Your task to perform on an android device: What is the news today? Image 0: 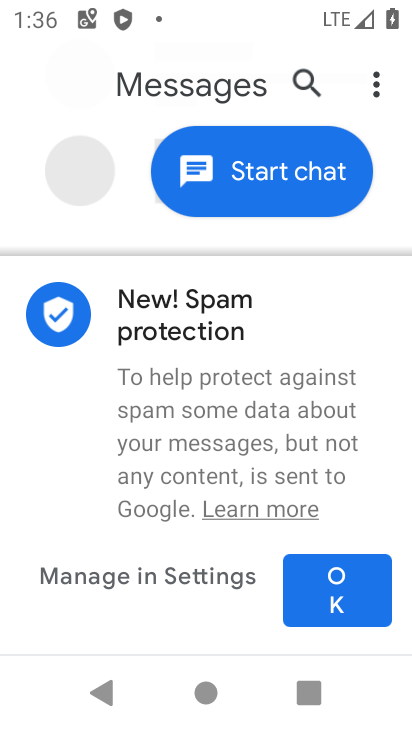
Step 0: press home button
Your task to perform on an android device: What is the news today? Image 1: 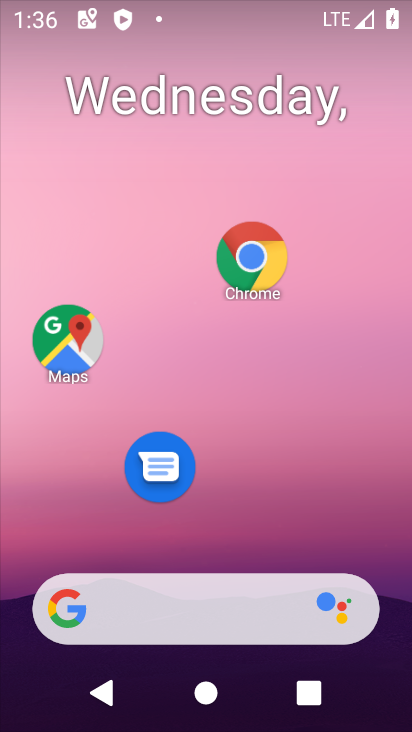
Step 1: click (254, 260)
Your task to perform on an android device: What is the news today? Image 2: 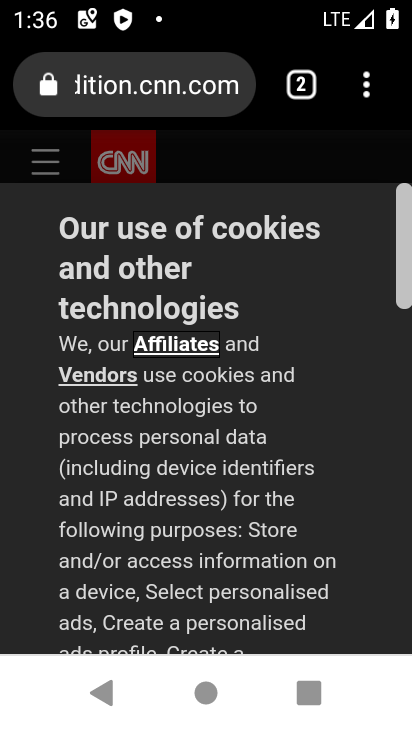
Step 2: drag from (368, 93) to (96, 169)
Your task to perform on an android device: What is the news today? Image 3: 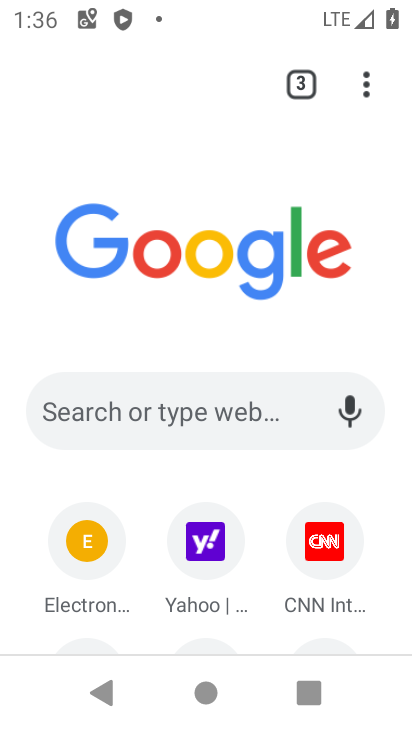
Step 3: click (147, 408)
Your task to perform on an android device: What is the news today? Image 4: 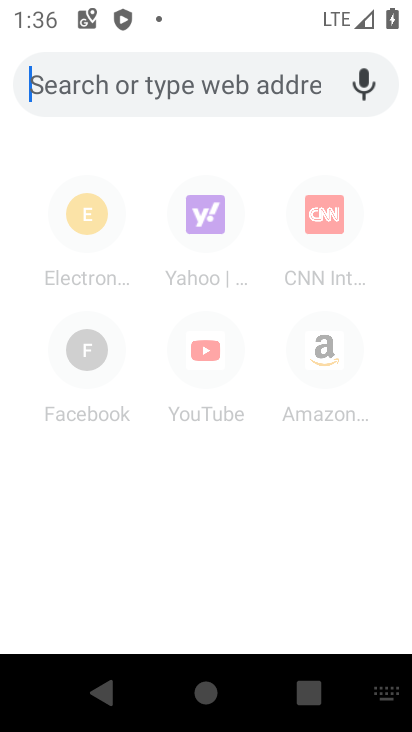
Step 4: type "What is the news today?"
Your task to perform on an android device: What is the news today? Image 5: 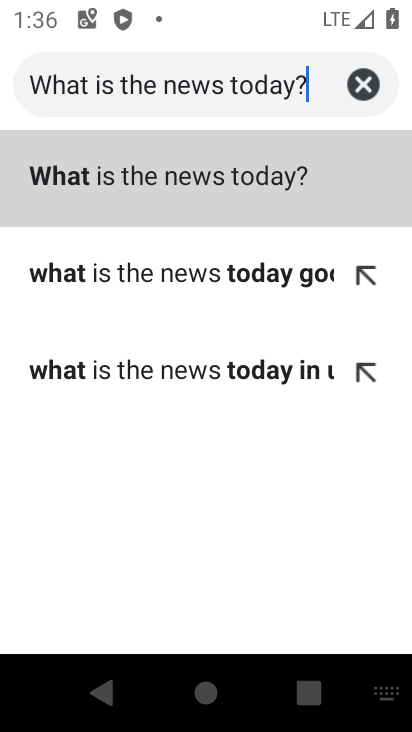
Step 5: click (106, 176)
Your task to perform on an android device: What is the news today? Image 6: 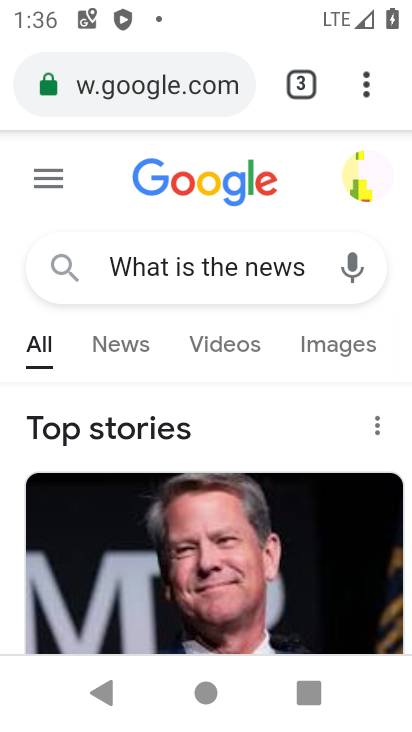
Step 6: click (133, 335)
Your task to perform on an android device: What is the news today? Image 7: 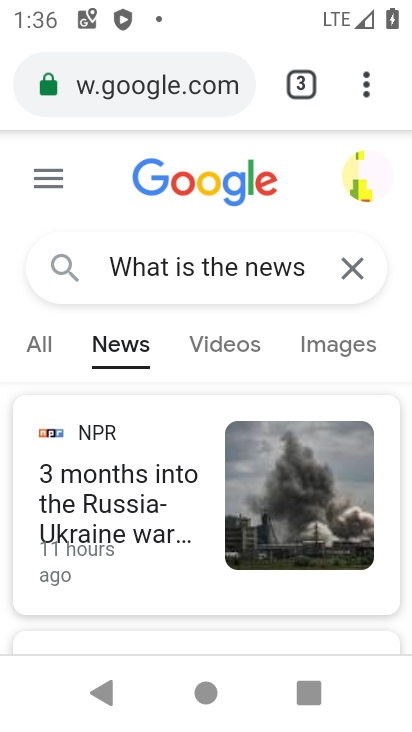
Step 7: task complete